Your task to perform on an android device: change notification settings in the gmail app Image 0: 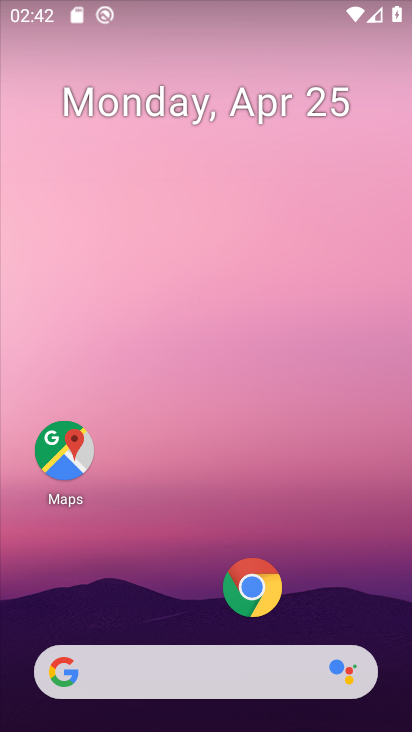
Step 0: drag from (187, 259) to (187, 55)
Your task to perform on an android device: change notification settings in the gmail app Image 1: 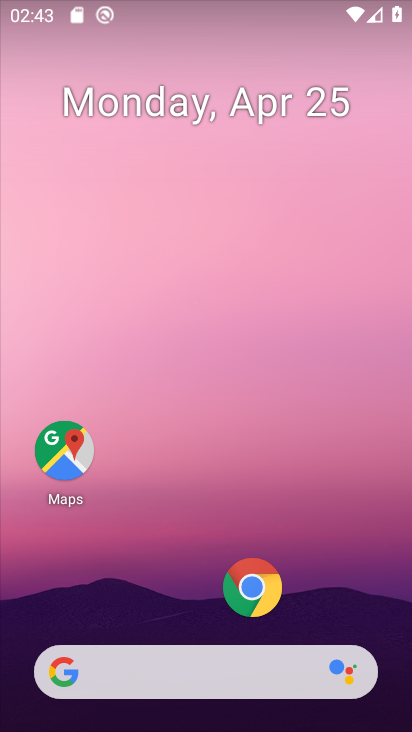
Step 1: drag from (198, 628) to (147, 40)
Your task to perform on an android device: change notification settings in the gmail app Image 2: 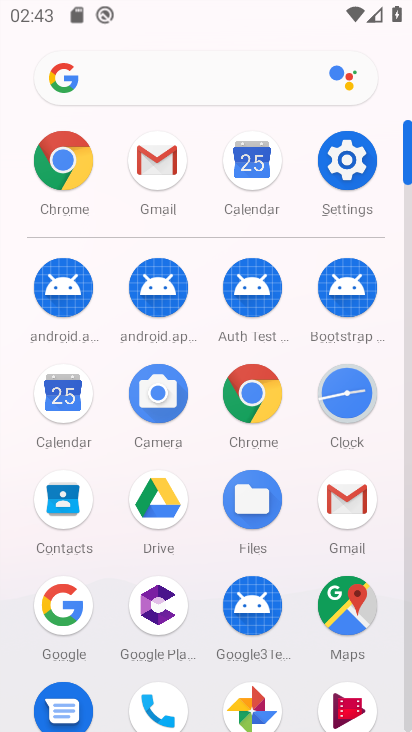
Step 2: click (158, 148)
Your task to perform on an android device: change notification settings in the gmail app Image 3: 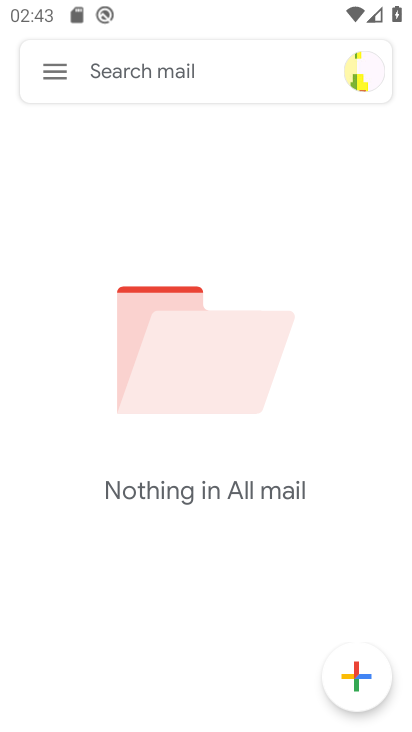
Step 3: click (54, 73)
Your task to perform on an android device: change notification settings in the gmail app Image 4: 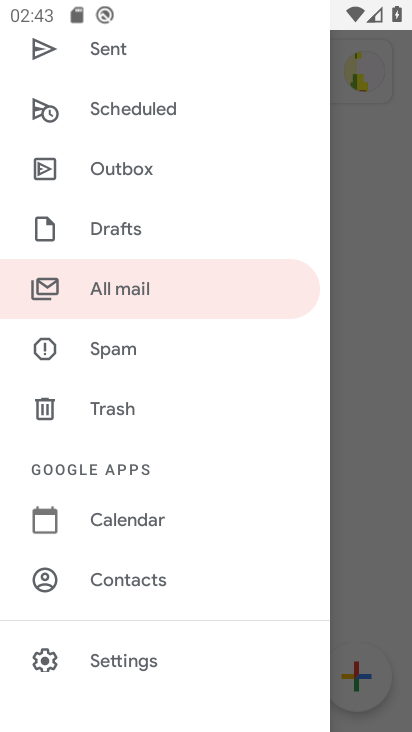
Step 4: click (174, 657)
Your task to perform on an android device: change notification settings in the gmail app Image 5: 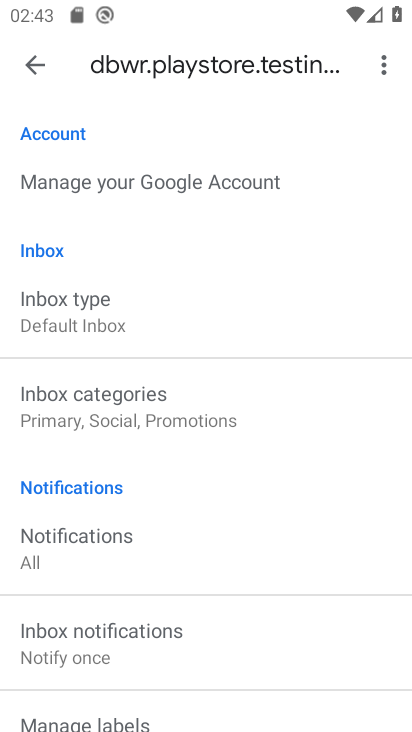
Step 5: click (38, 70)
Your task to perform on an android device: change notification settings in the gmail app Image 6: 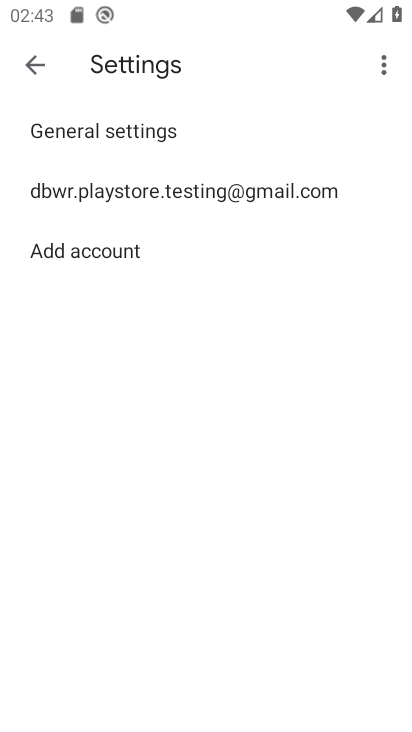
Step 6: click (190, 128)
Your task to perform on an android device: change notification settings in the gmail app Image 7: 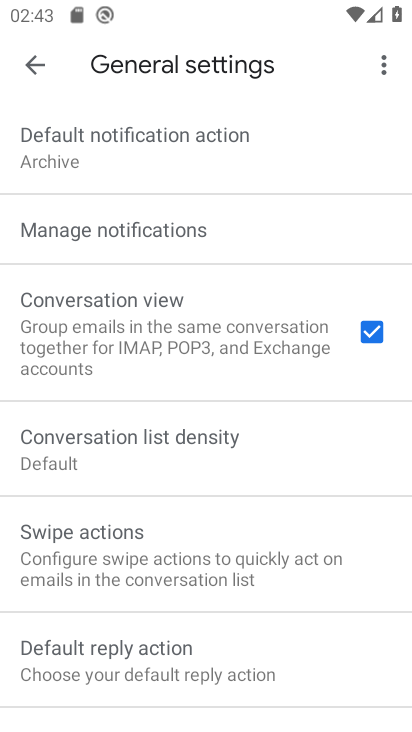
Step 7: click (218, 228)
Your task to perform on an android device: change notification settings in the gmail app Image 8: 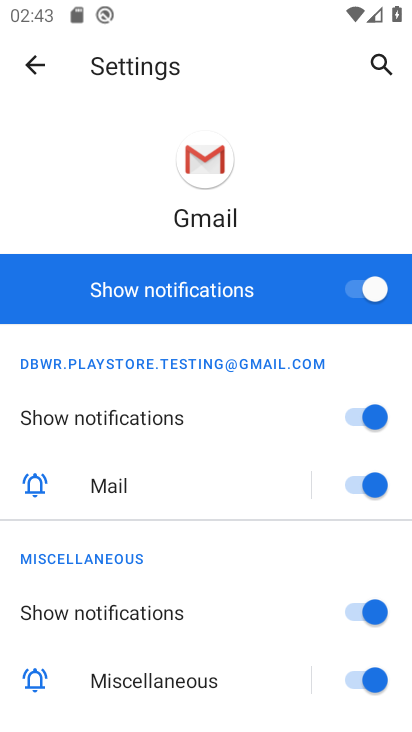
Step 8: click (362, 288)
Your task to perform on an android device: change notification settings in the gmail app Image 9: 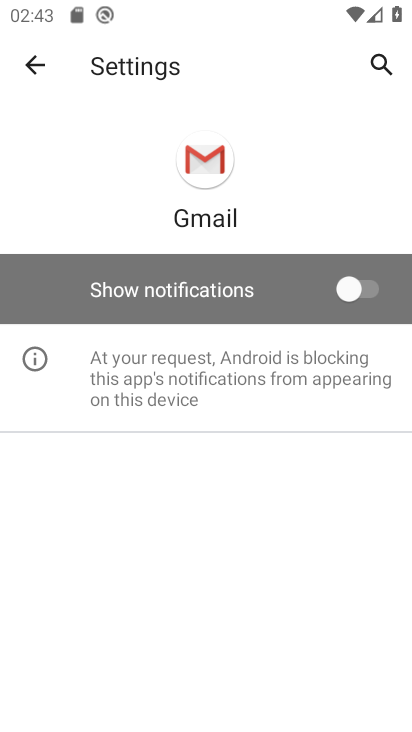
Step 9: task complete